Your task to perform on an android device: Open Wikipedia Image 0: 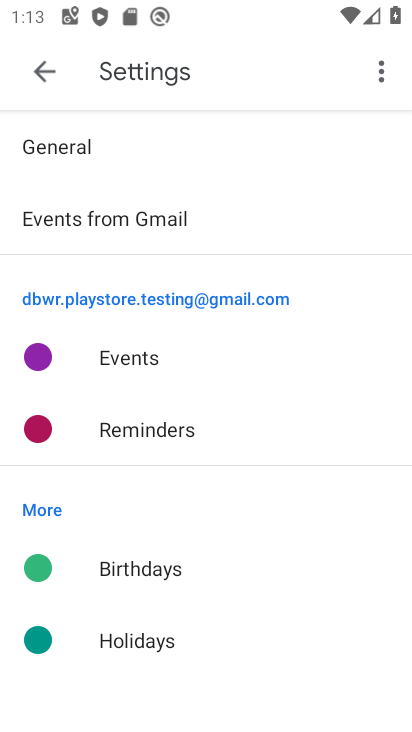
Step 0: press home button
Your task to perform on an android device: Open Wikipedia Image 1: 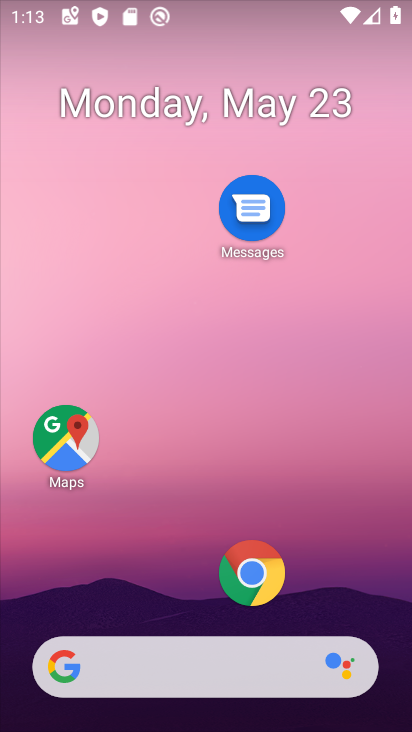
Step 1: drag from (198, 548) to (226, 36)
Your task to perform on an android device: Open Wikipedia Image 2: 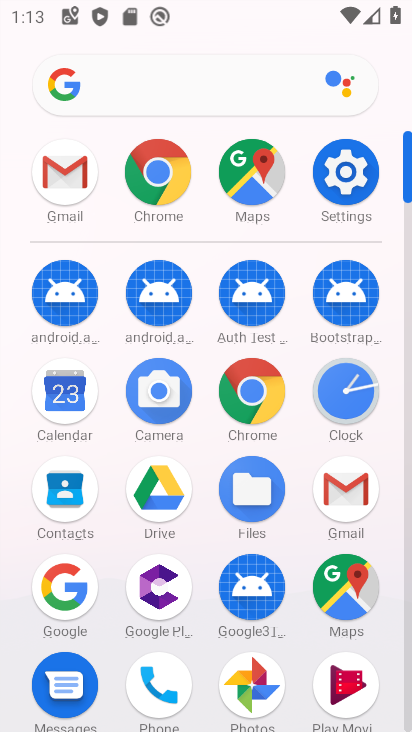
Step 2: click (145, 188)
Your task to perform on an android device: Open Wikipedia Image 3: 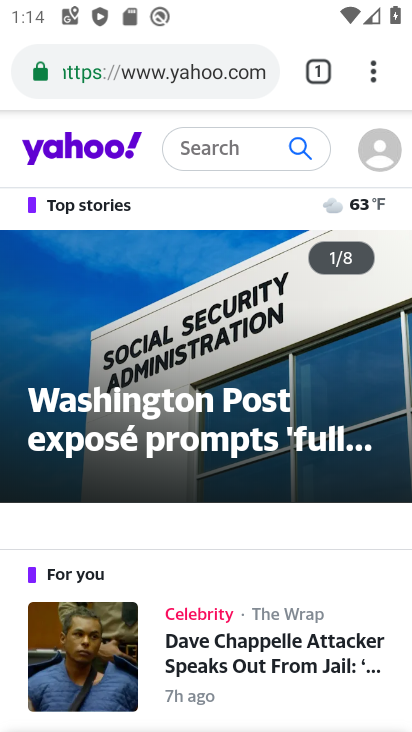
Step 3: click (270, 72)
Your task to perform on an android device: Open Wikipedia Image 4: 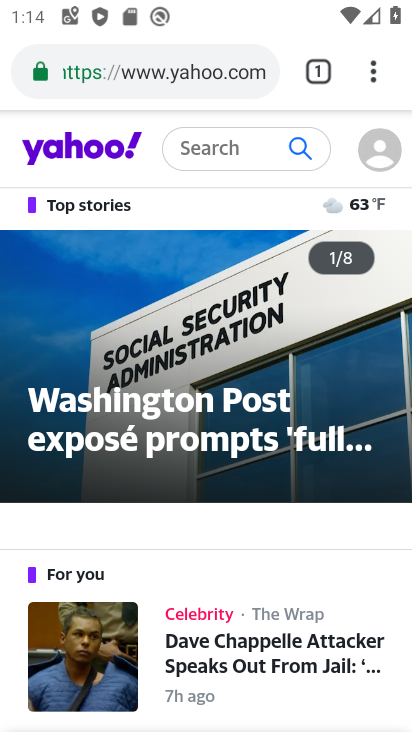
Step 4: click (247, 70)
Your task to perform on an android device: Open Wikipedia Image 5: 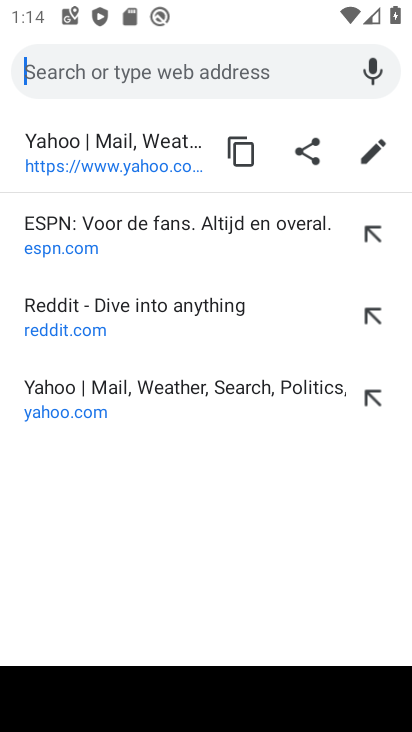
Step 5: type "wikipedia"
Your task to perform on an android device: Open Wikipedia Image 6: 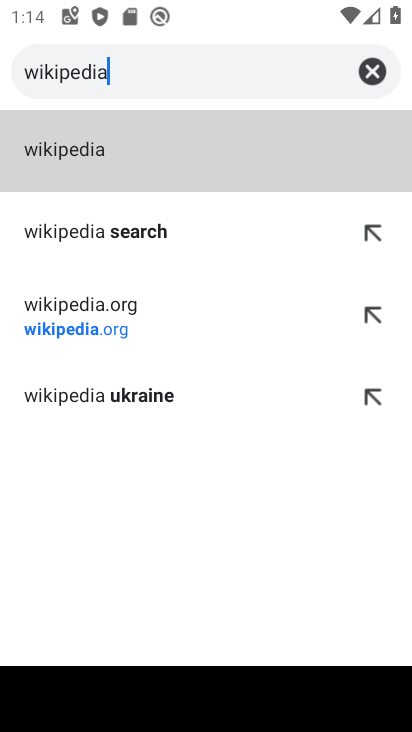
Step 6: click (110, 148)
Your task to perform on an android device: Open Wikipedia Image 7: 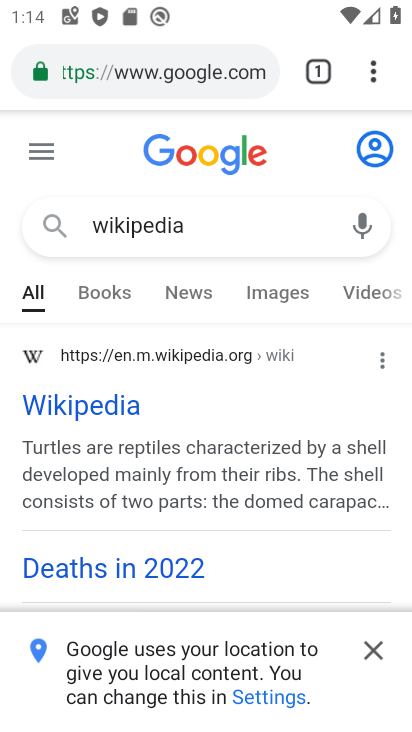
Step 7: click (80, 412)
Your task to perform on an android device: Open Wikipedia Image 8: 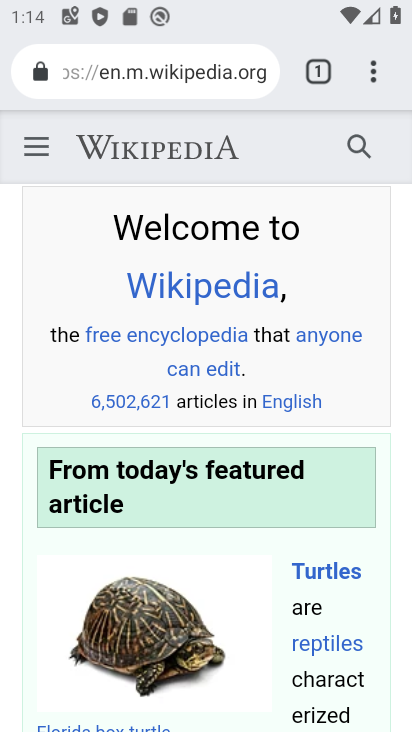
Step 8: task complete